Your task to perform on an android device: change the clock display to show seconds Image 0: 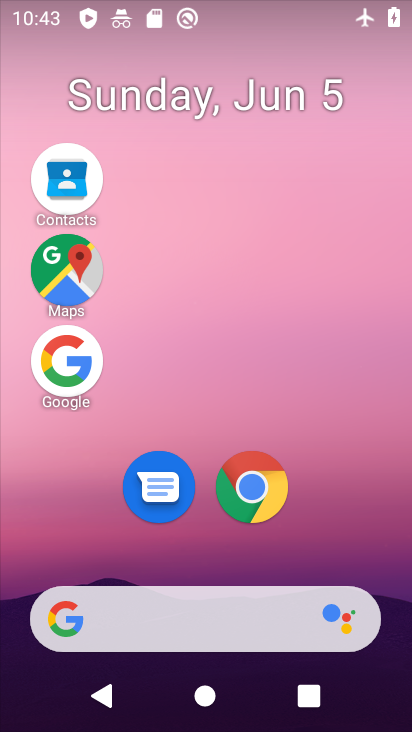
Step 0: drag from (230, 556) to (217, 54)
Your task to perform on an android device: change the clock display to show seconds Image 1: 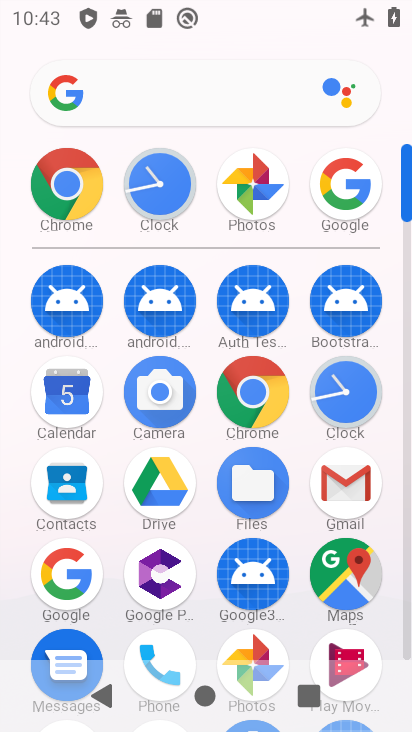
Step 1: click (355, 393)
Your task to perform on an android device: change the clock display to show seconds Image 2: 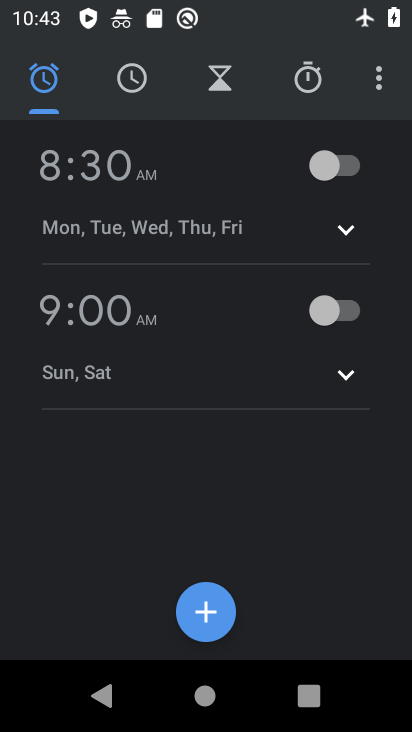
Step 2: click (376, 92)
Your task to perform on an android device: change the clock display to show seconds Image 3: 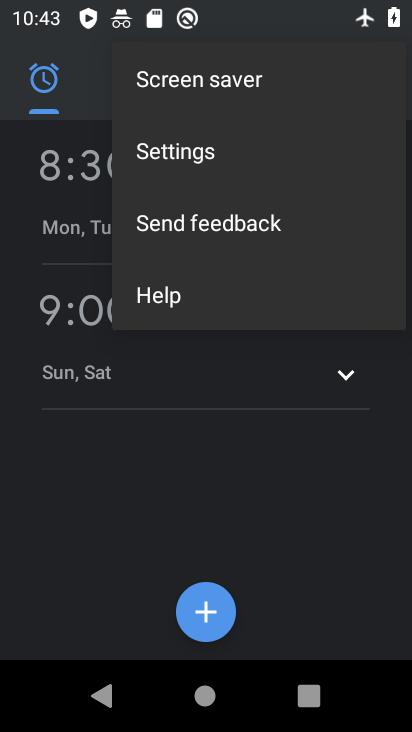
Step 3: click (189, 156)
Your task to perform on an android device: change the clock display to show seconds Image 4: 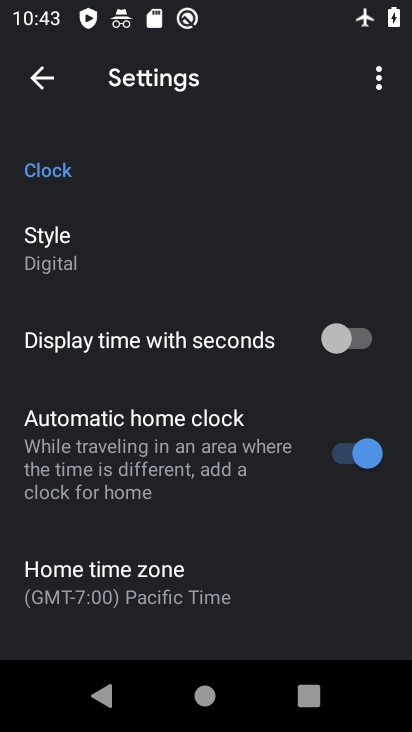
Step 4: click (215, 364)
Your task to perform on an android device: change the clock display to show seconds Image 5: 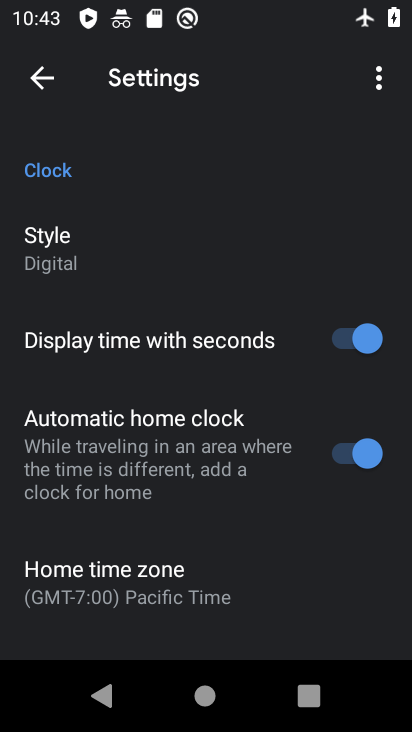
Step 5: task complete